Your task to perform on an android device: When is my next meeting? Image 0: 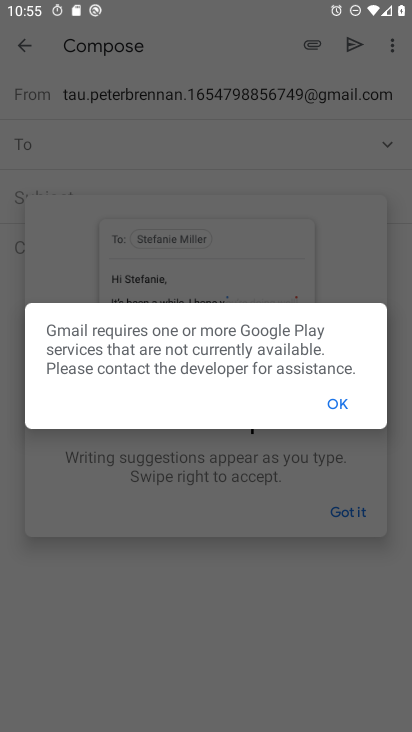
Step 0: press home button
Your task to perform on an android device: When is my next meeting? Image 1: 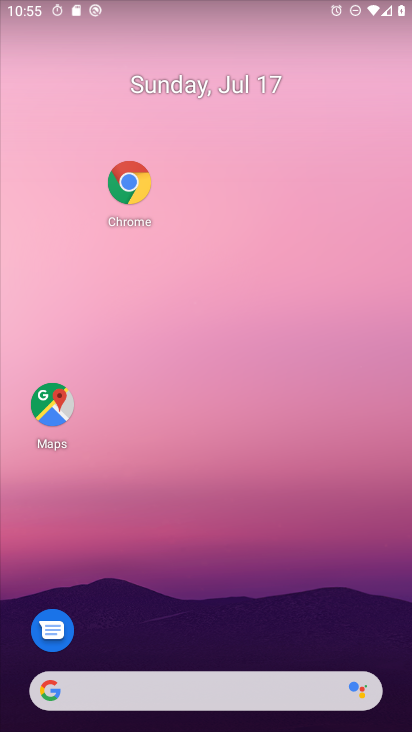
Step 1: drag from (247, 637) to (278, 263)
Your task to perform on an android device: When is my next meeting? Image 2: 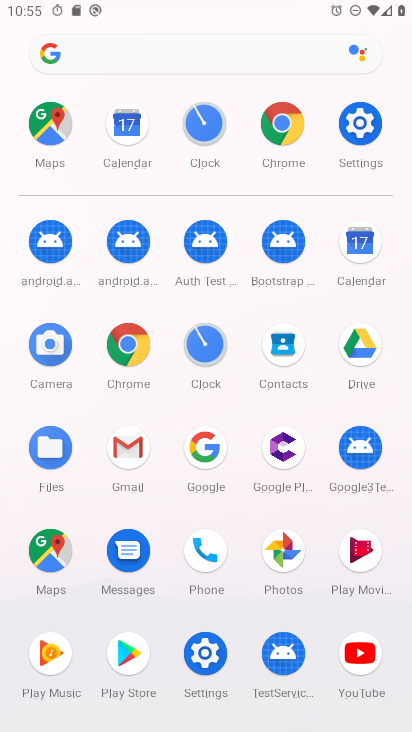
Step 2: click (351, 239)
Your task to perform on an android device: When is my next meeting? Image 3: 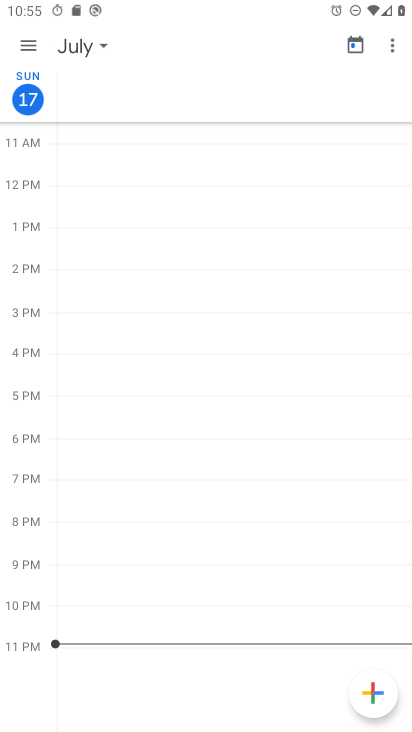
Step 3: click (29, 42)
Your task to perform on an android device: When is my next meeting? Image 4: 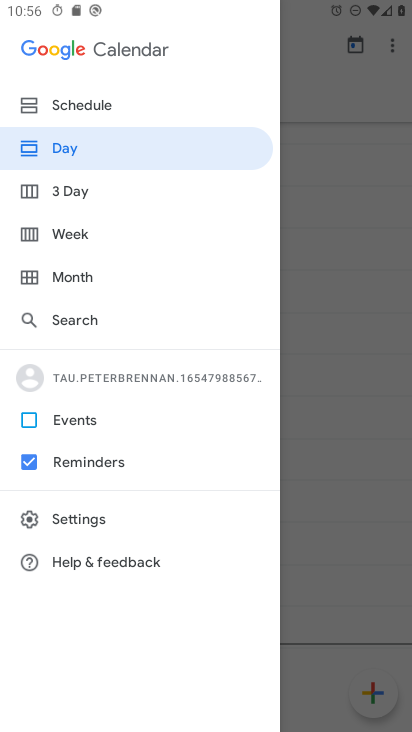
Step 4: click (74, 264)
Your task to perform on an android device: When is my next meeting? Image 5: 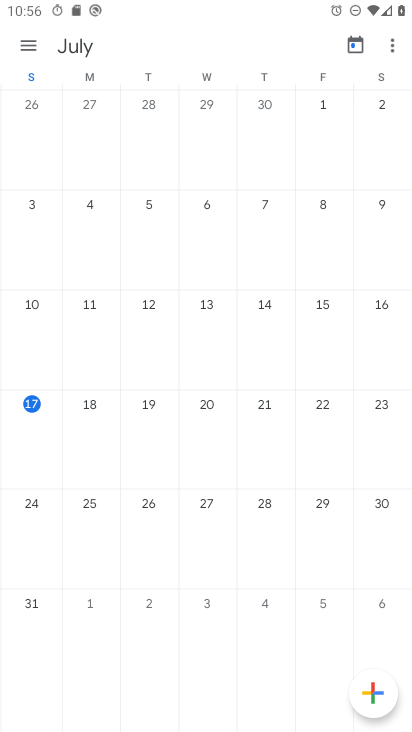
Step 5: click (154, 411)
Your task to perform on an android device: When is my next meeting? Image 6: 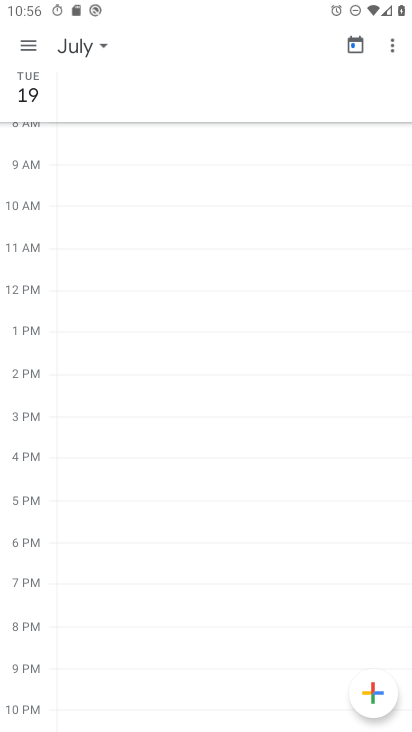
Step 6: task complete